Your task to perform on an android device: turn on javascript in the chrome app Image 0: 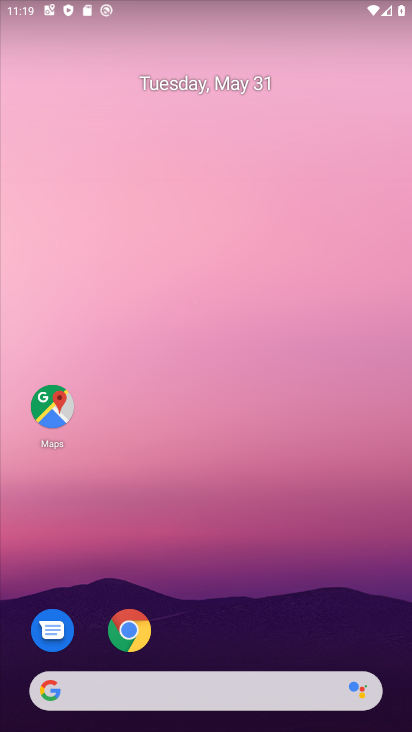
Step 0: click (142, 639)
Your task to perform on an android device: turn on javascript in the chrome app Image 1: 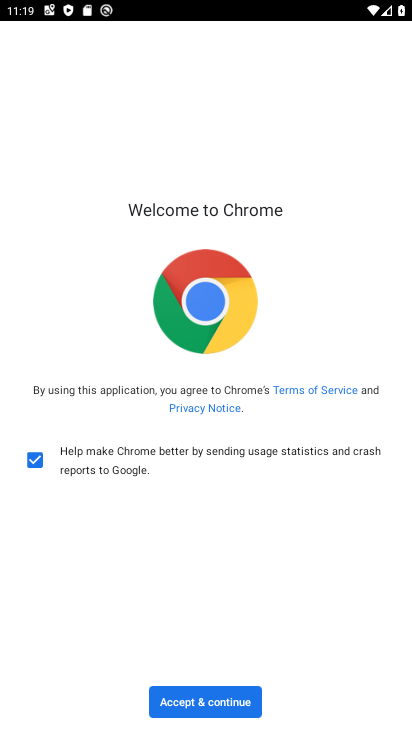
Step 1: click (234, 706)
Your task to perform on an android device: turn on javascript in the chrome app Image 2: 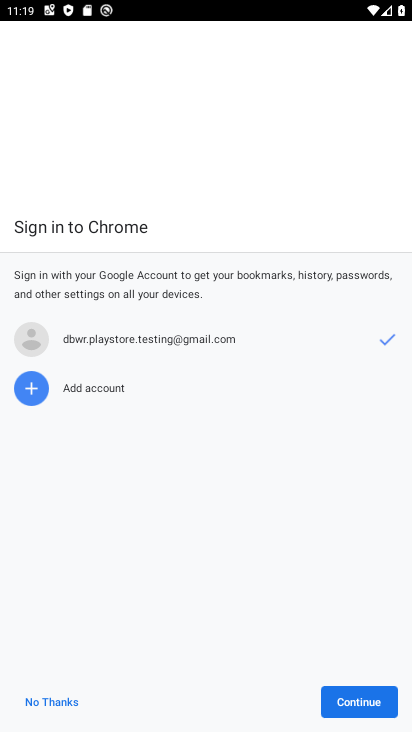
Step 2: click (358, 706)
Your task to perform on an android device: turn on javascript in the chrome app Image 3: 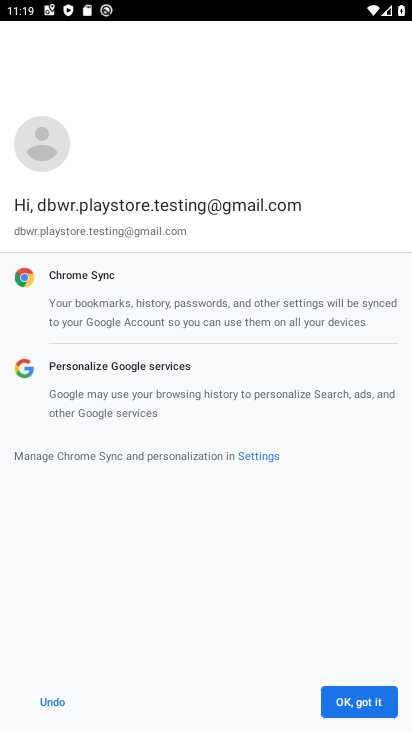
Step 3: click (363, 702)
Your task to perform on an android device: turn on javascript in the chrome app Image 4: 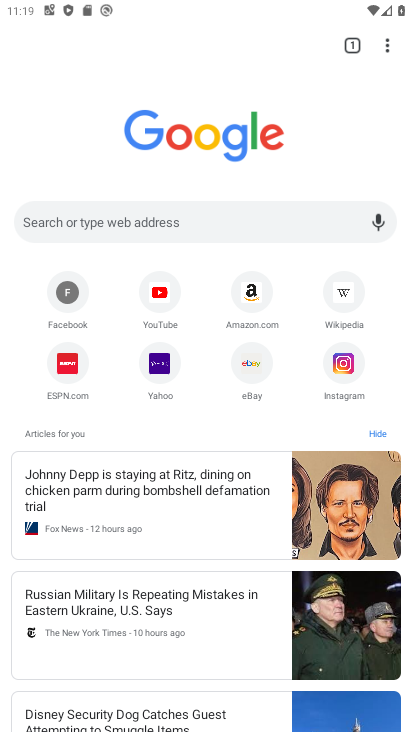
Step 4: click (384, 50)
Your task to perform on an android device: turn on javascript in the chrome app Image 5: 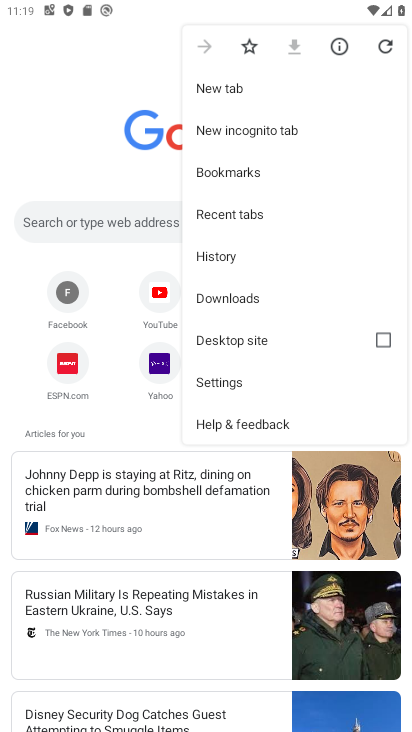
Step 5: click (251, 388)
Your task to perform on an android device: turn on javascript in the chrome app Image 6: 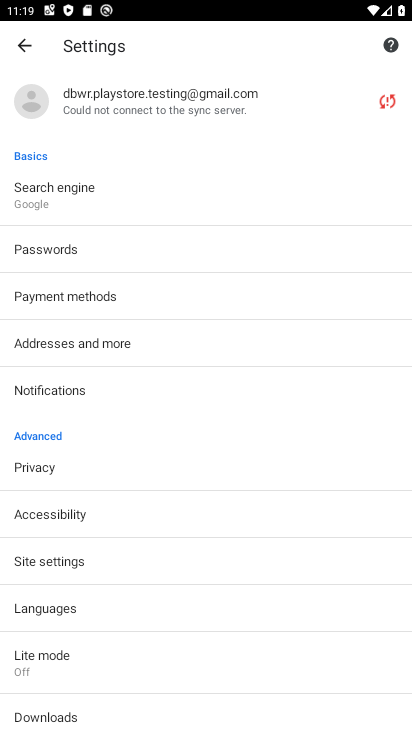
Step 6: drag from (219, 636) to (254, 192)
Your task to perform on an android device: turn on javascript in the chrome app Image 7: 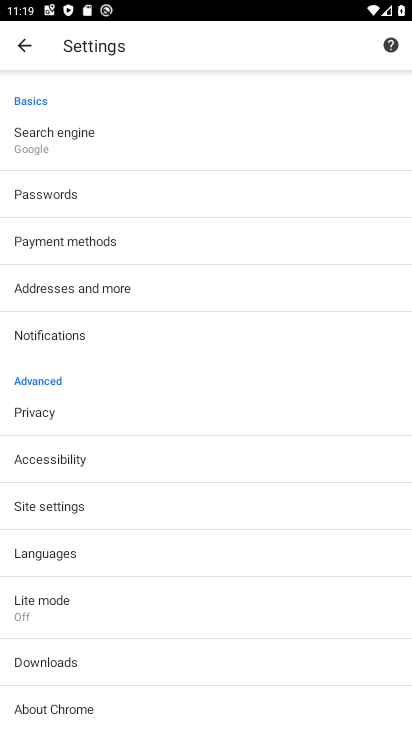
Step 7: click (35, 509)
Your task to perform on an android device: turn on javascript in the chrome app Image 8: 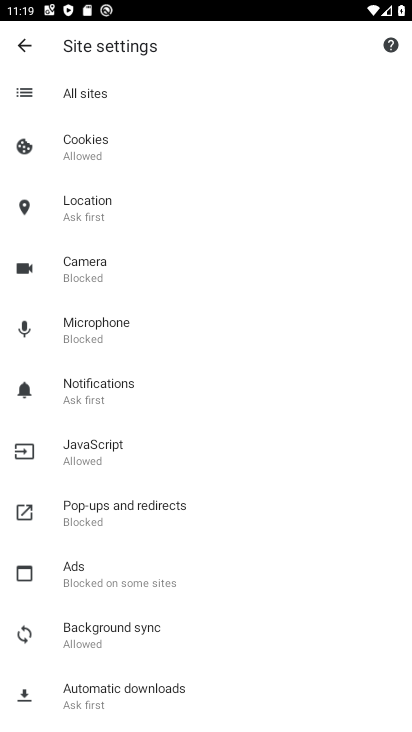
Step 8: click (109, 460)
Your task to perform on an android device: turn on javascript in the chrome app Image 9: 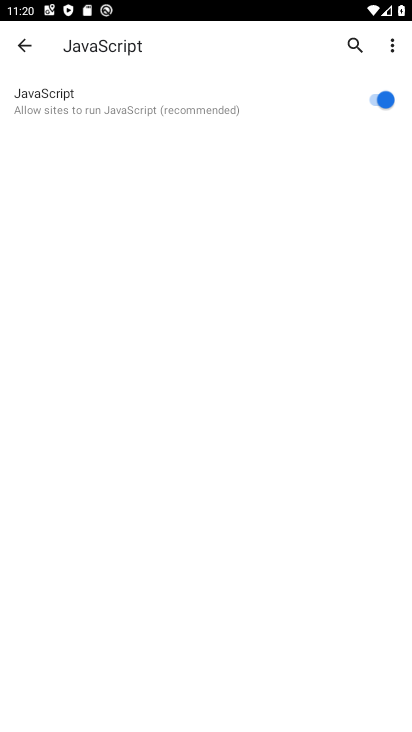
Step 9: task complete